Your task to perform on an android device: see tabs open on other devices in the chrome app Image 0: 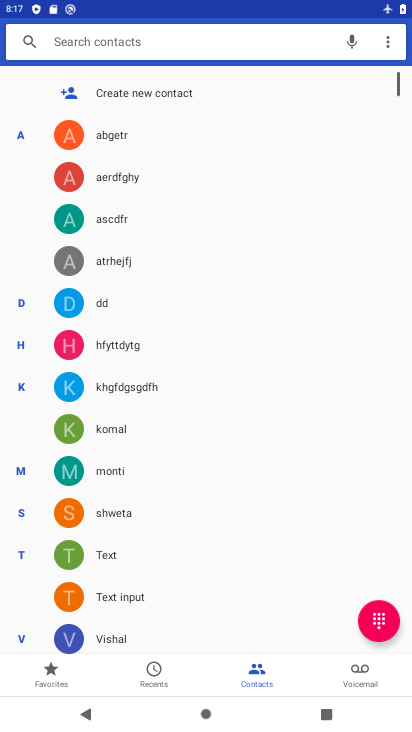
Step 0: press home button
Your task to perform on an android device: see tabs open on other devices in the chrome app Image 1: 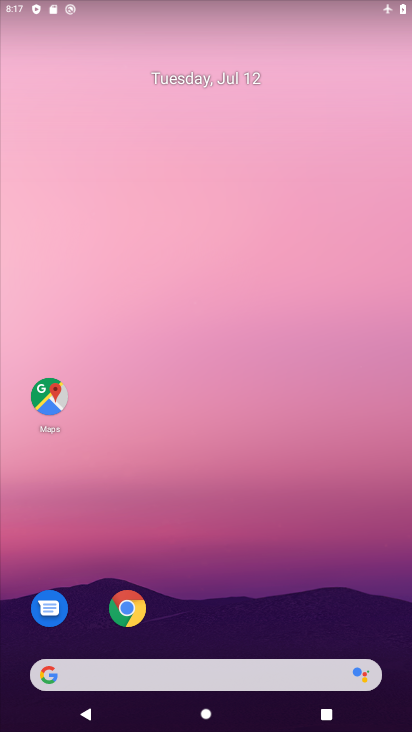
Step 1: drag from (228, 645) to (222, 33)
Your task to perform on an android device: see tabs open on other devices in the chrome app Image 2: 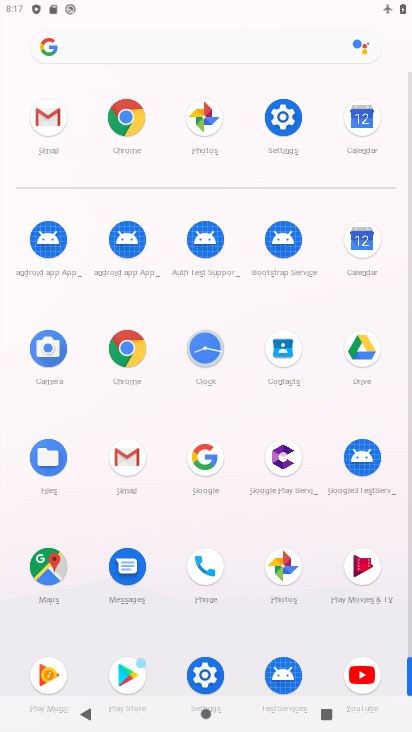
Step 2: click (125, 112)
Your task to perform on an android device: see tabs open on other devices in the chrome app Image 3: 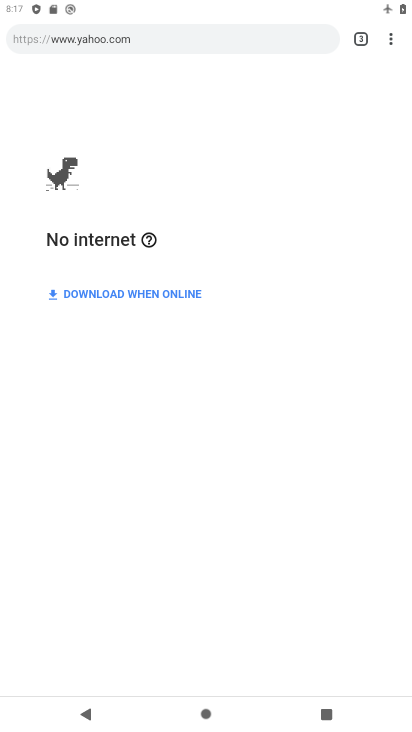
Step 3: click (350, 38)
Your task to perform on an android device: see tabs open on other devices in the chrome app Image 4: 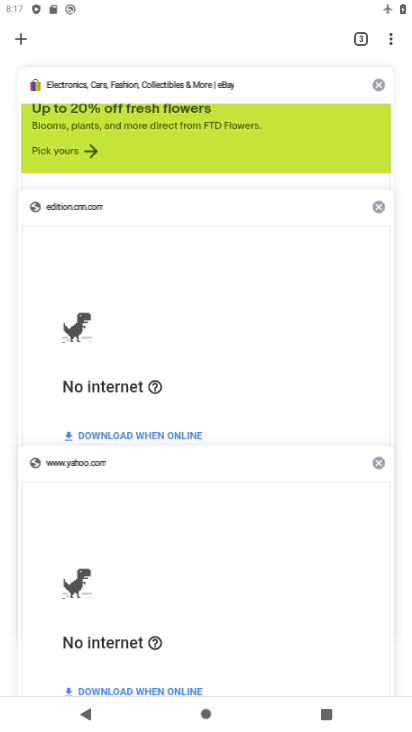
Step 4: task complete